Your task to perform on an android device: turn on the 24-hour format for clock Image 0: 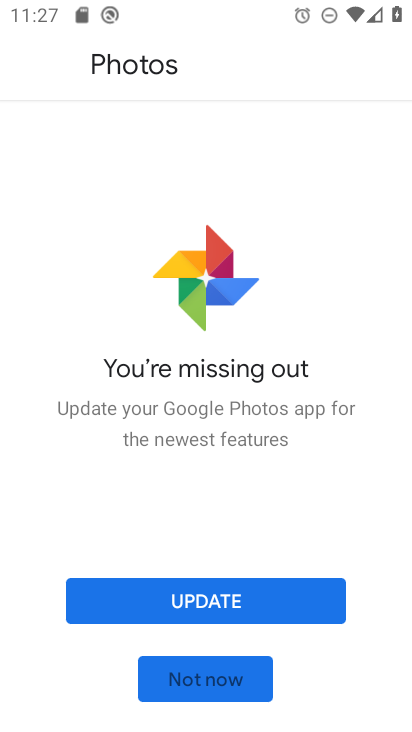
Step 0: press home button
Your task to perform on an android device: turn on the 24-hour format for clock Image 1: 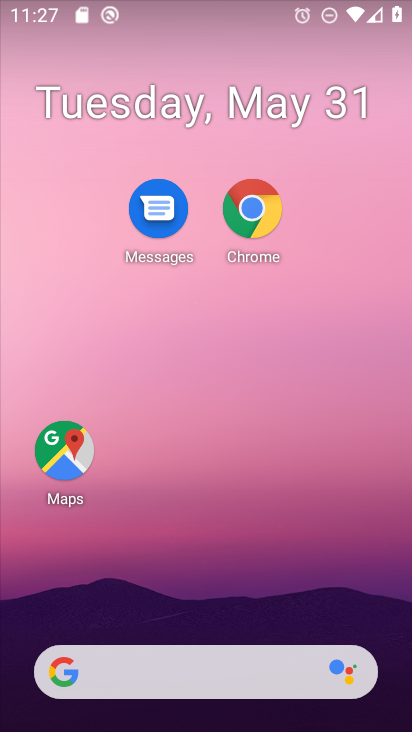
Step 1: drag from (229, 619) to (217, 69)
Your task to perform on an android device: turn on the 24-hour format for clock Image 2: 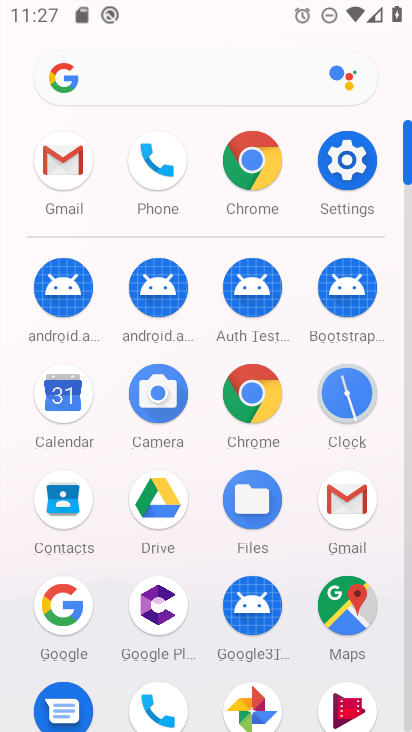
Step 2: click (344, 384)
Your task to perform on an android device: turn on the 24-hour format for clock Image 3: 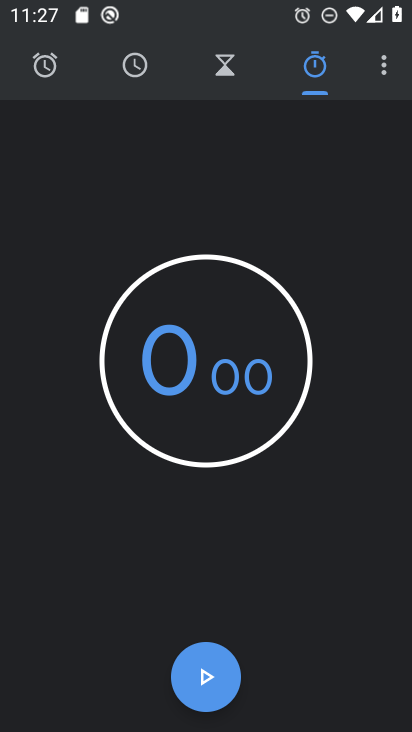
Step 3: click (386, 70)
Your task to perform on an android device: turn on the 24-hour format for clock Image 4: 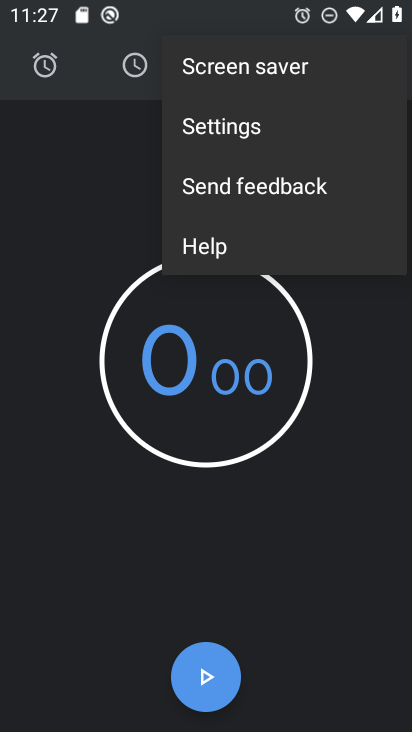
Step 4: click (270, 123)
Your task to perform on an android device: turn on the 24-hour format for clock Image 5: 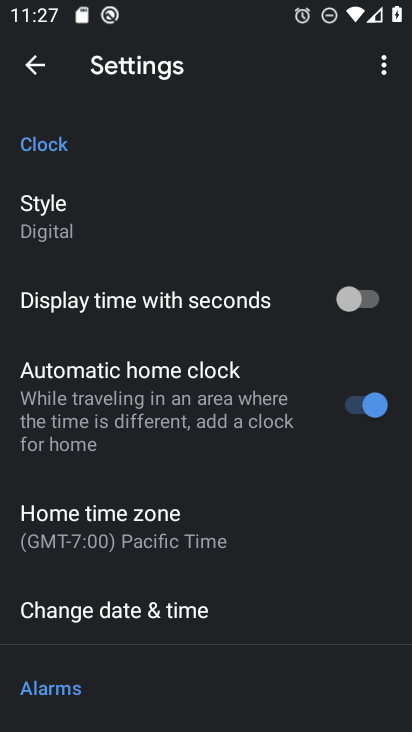
Step 5: click (224, 607)
Your task to perform on an android device: turn on the 24-hour format for clock Image 6: 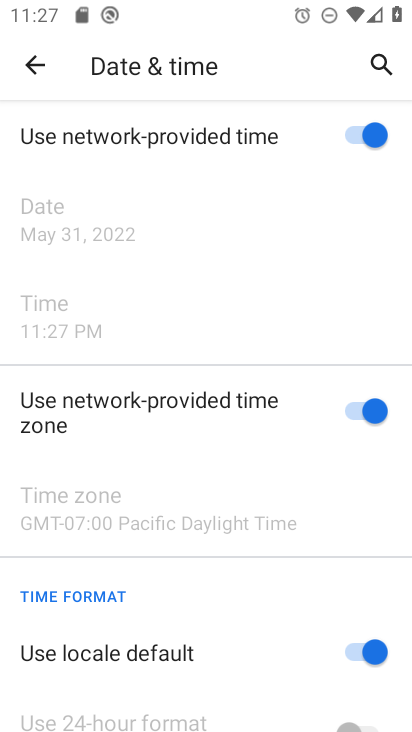
Step 6: drag from (257, 673) to (261, 171)
Your task to perform on an android device: turn on the 24-hour format for clock Image 7: 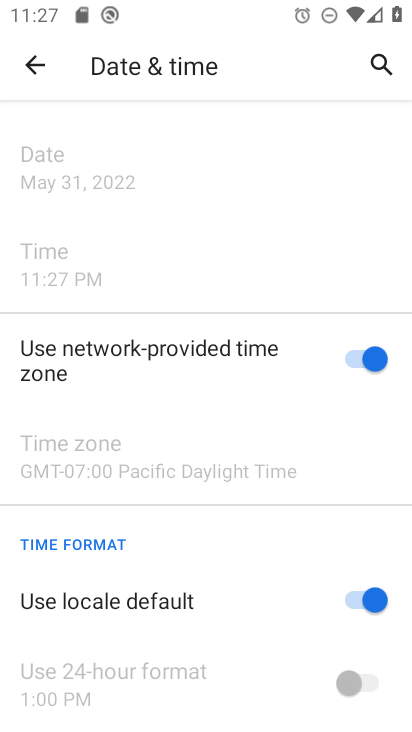
Step 7: click (360, 597)
Your task to perform on an android device: turn on the 24-hour format for clock Image 8: 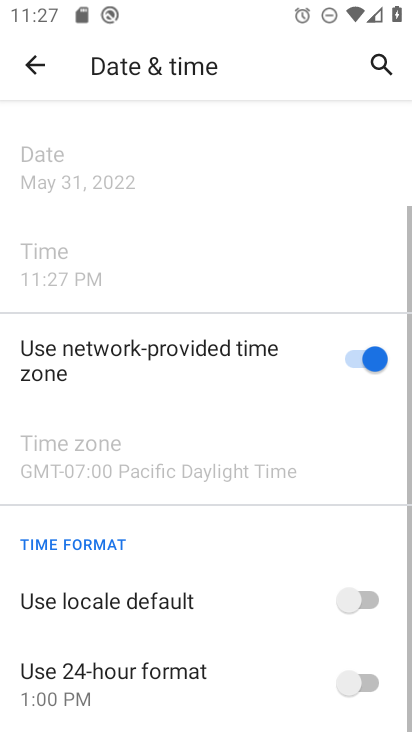
Step 8: click (367, 682)
Your task to perform on an android device: turn on the 24-hour format for clock Image 9: 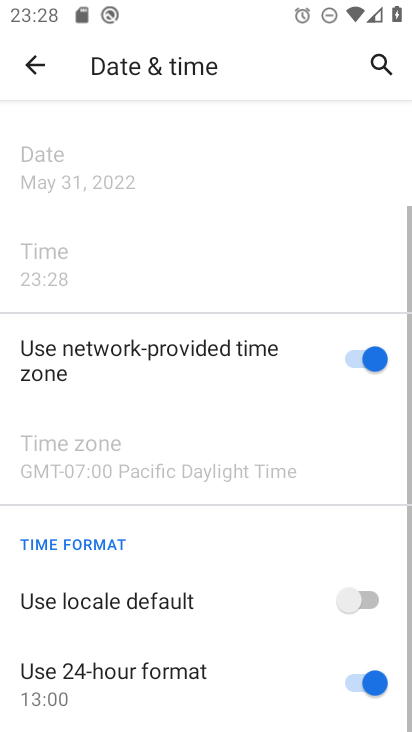
Step 9: task complete